Your task to perform on an android device: snooze an email in the gmail app Image 0: 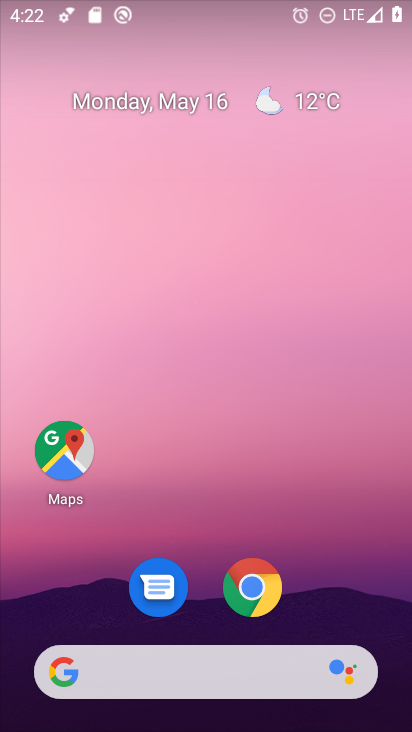
Step 0: drag from (392, 677) to (340, 299)
Your task to perform on an android device: snooze an email in the gmail app Image 1: 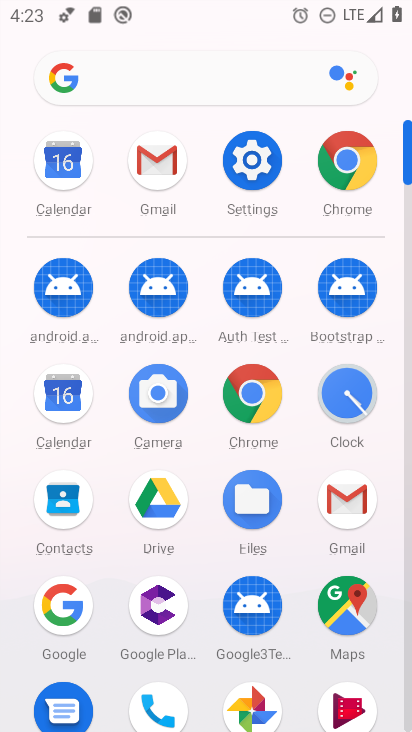
Step 1: click (342, 509)
Your task to perform on an android device: snooze an email in the gmail app Image 2: 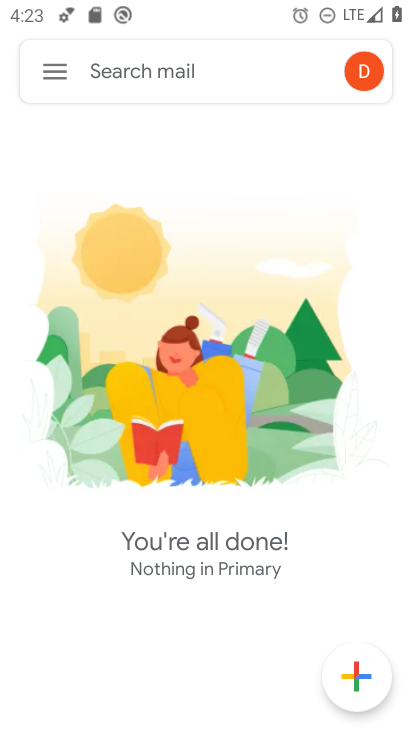
Step 2: click (44, 71)
Your task to perform on an android device: snooze an email in the gmail app Image 3: 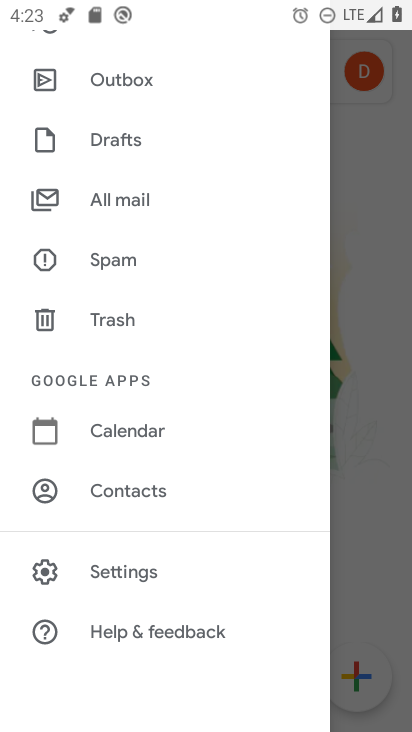
Step 3: drag from (247, 123) to (254, 499)
Your task to perform on an android device: snooze an email in the gmail app Image 4: 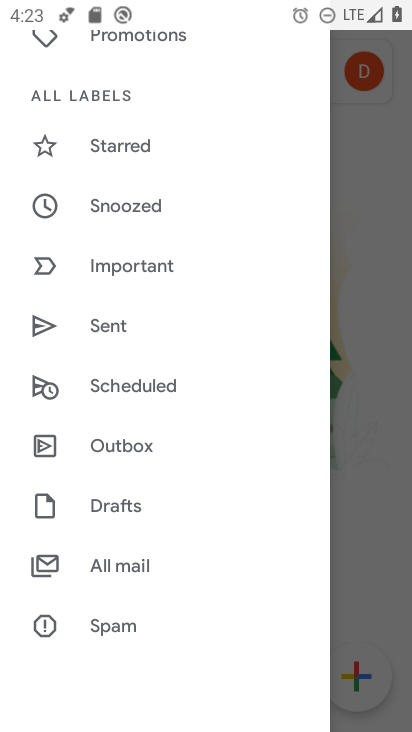
Step 4: drag from (235, 160) to (241, 428)
Your task to perform on an android device: snooze an email in the gmail app Image 5: 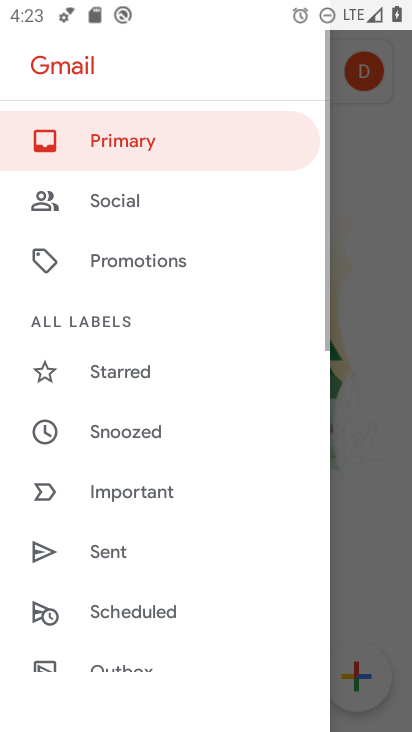
Step 5: click (131, 130)
Your task to perform on an android device: snooze an email in the gmail app Image 6: 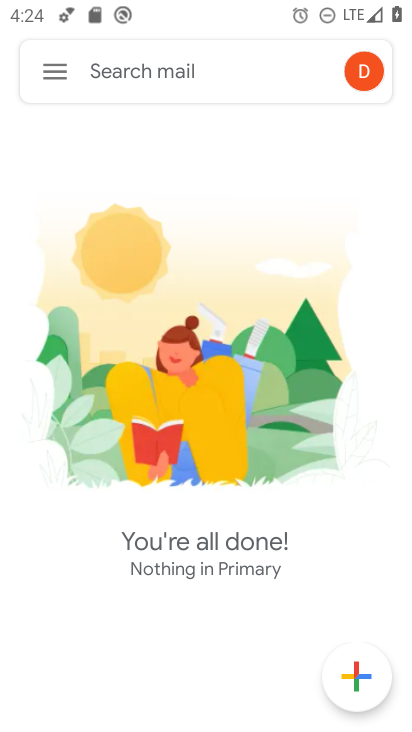
Step 6: task complete